Your task to perform on an android device: Do I have any events tomorrow? Image 0: 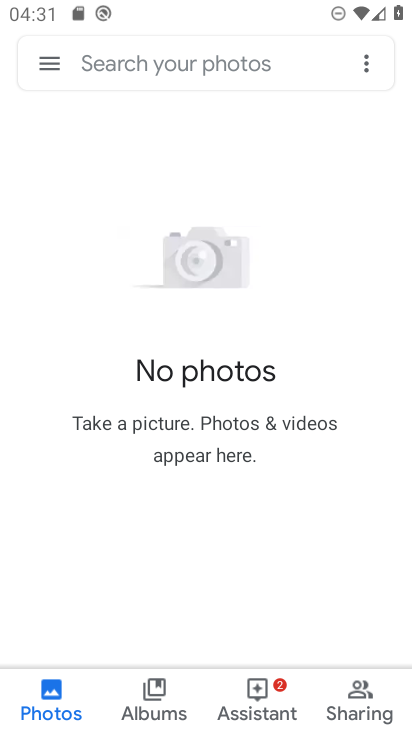
Step 0: drag from (255, 597) to (314, 258)
Your task to perform on an android device: Do I have any events tomorrow? Image 1: 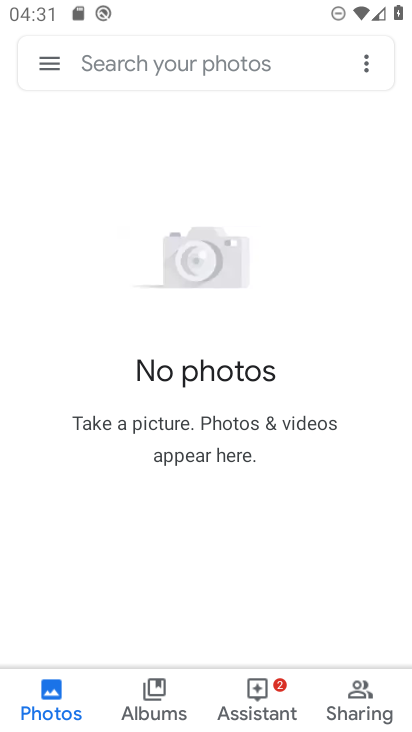
Step 1: press home button
Your task to perform on an android device: Do I have any events tomorrow? Image 2: 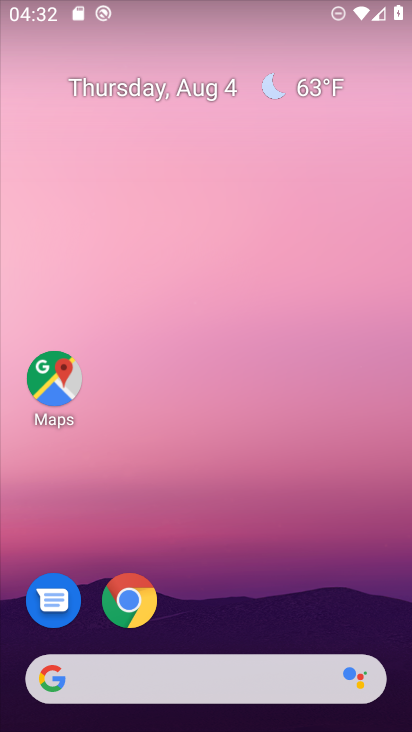
Step 2: drag from (248, 619) to (243, 175)
Your task to perform on an android device: Do I have any events tomorrow? Image 3: 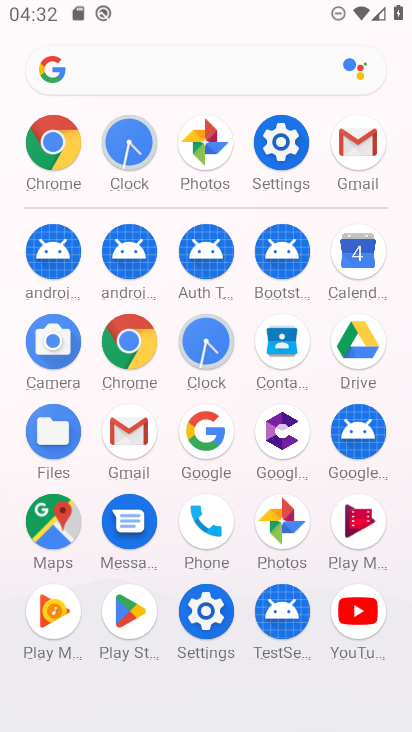
Step 3: click (355, 257)
Your task to perform on an android device: Do I have any events tomorrow? Image 4: 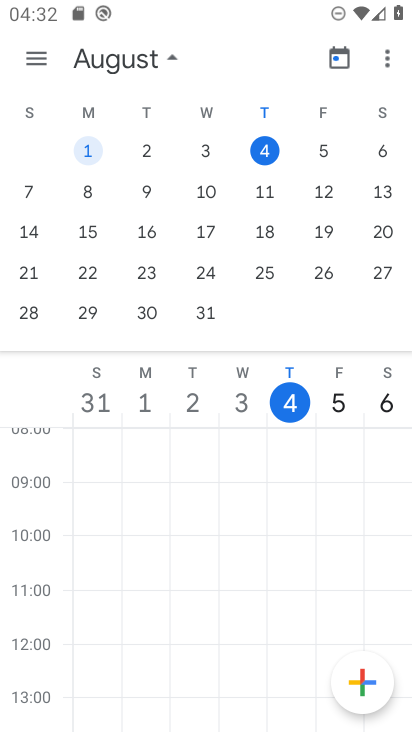
Step 4: click (307, 150)
Your task to perform on an android device: Do I have any events tomorrow? Image 5: 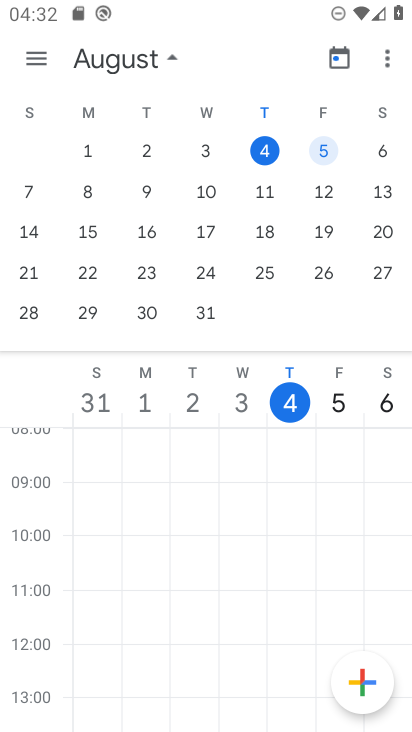
Step 5: click (326, 389)
Your task to perform on an android device: Do I have any events tomorrow? Image 6: 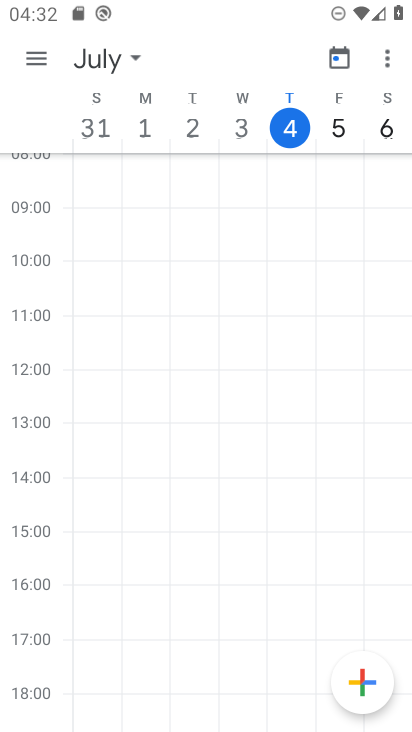
Step 6: click (340, 133)
Your task to perform on an android device: Do I have any events tomorrow? Image 7: 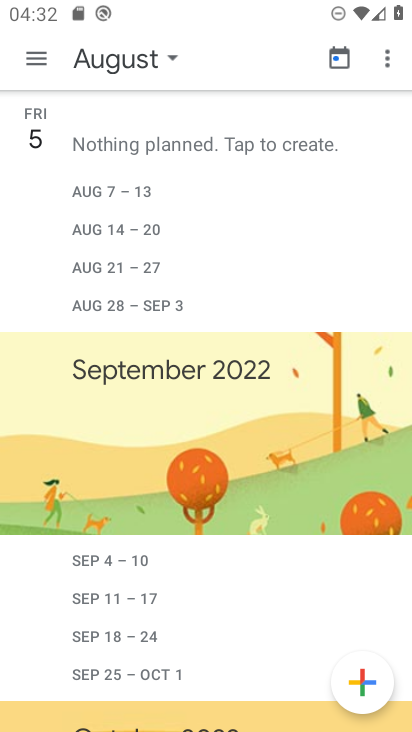
Step 7: task complete